Your task to perform on an android device: Open privacy settings Image 0: 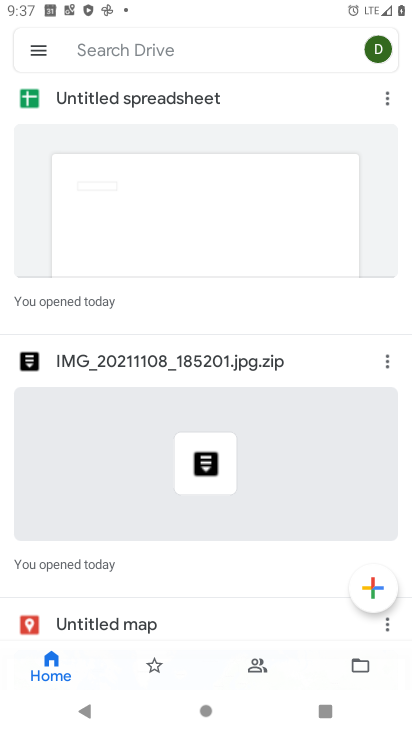
Step 0: press home button
Your task to perform on an android device: Open privacy settings Image 1: 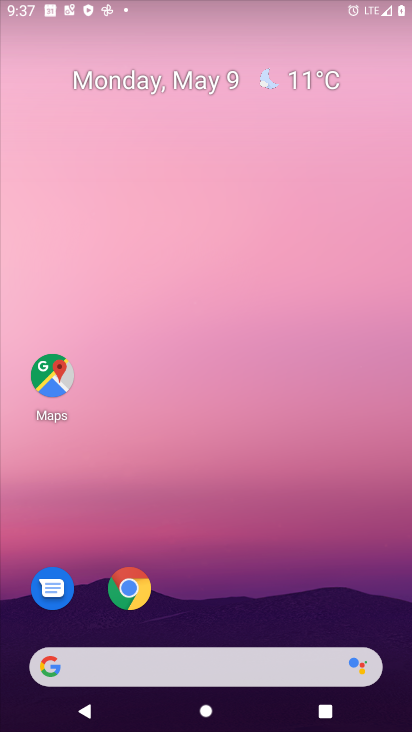
Step 1: drag from (334, 582) to (234, 21)
Your task to perform on an android device: Open privacy settings Image 2: 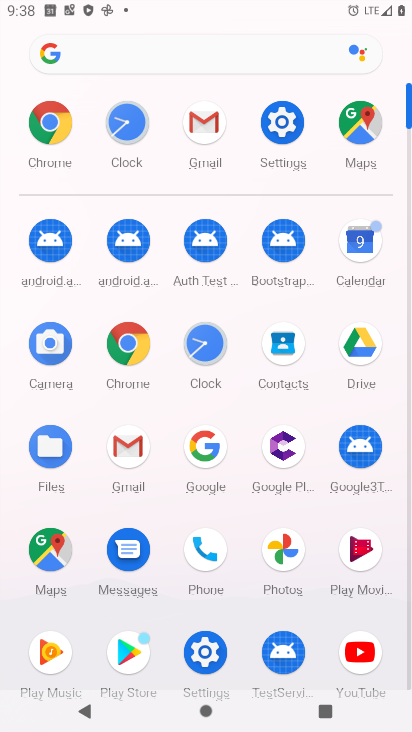
Step 2: click (198, 654)
Your task to perform on an android device: Open privacy settings Image 3: 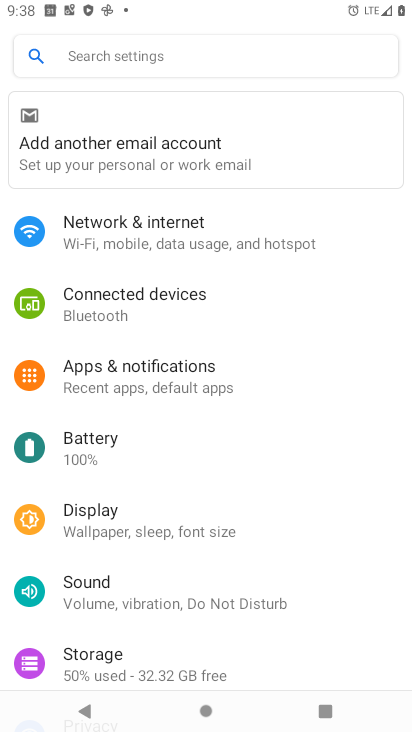
Step 3: drag from (149, 584) to (153, 207)
Your task to perform on an android device: Open privacy settings Image 4: 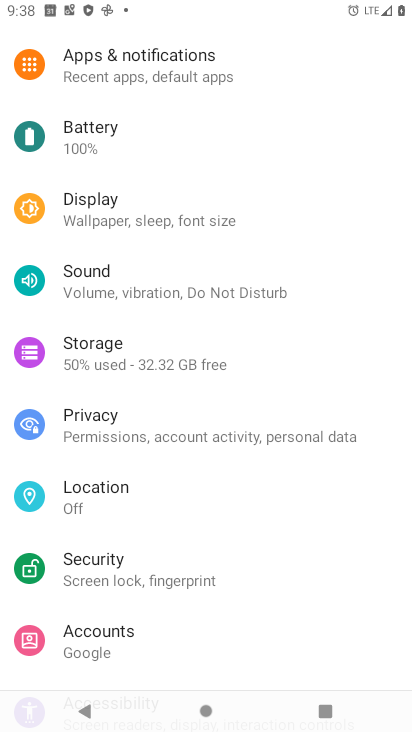
Step 4: click (168, 419)
Your task to perform on an android device: Open privacy settings Image 5: 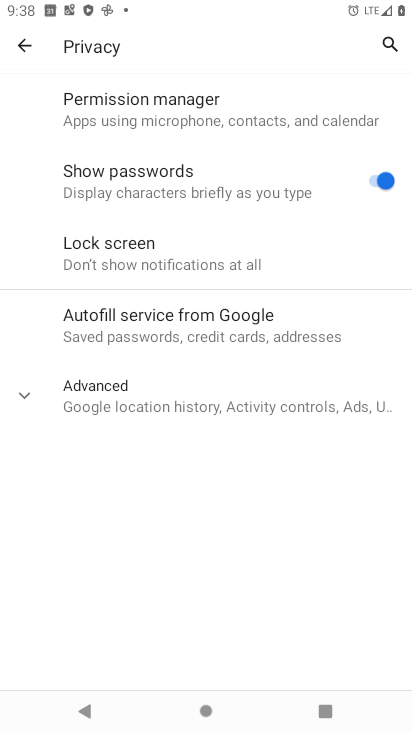
Step 5: task complete